Your task to perform on an android device: clear all cookies in the chrome app Image 0: 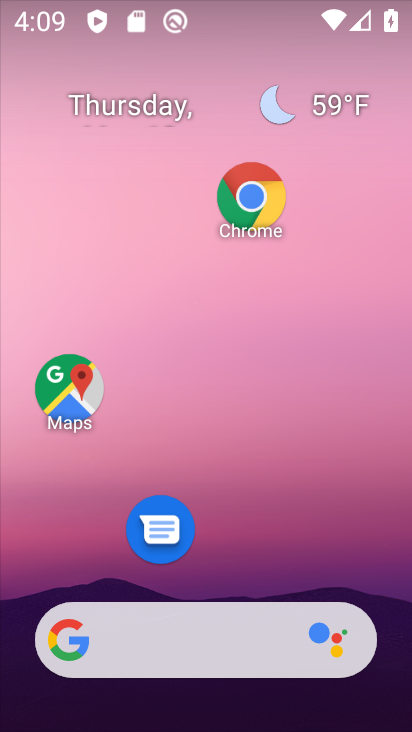
Step 0: drag from (235, 581) to (241, 58)
Your task to perform on an android device: clear all cookies in the chrome app Image 1: 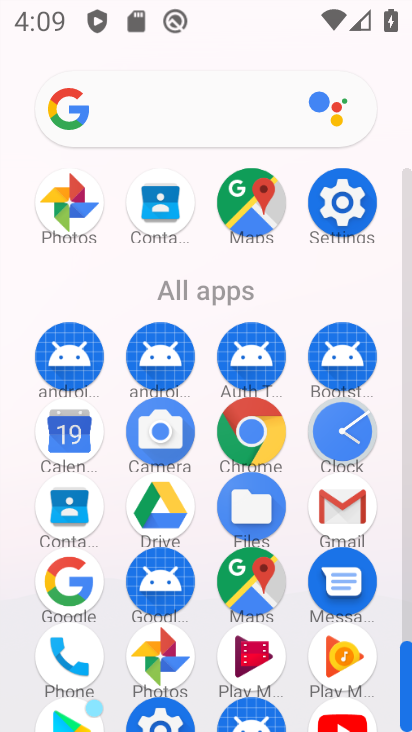
Step 1: click (242, 435)
Your task to perform on an android device: clear all cookies in the chrome app Image 2: 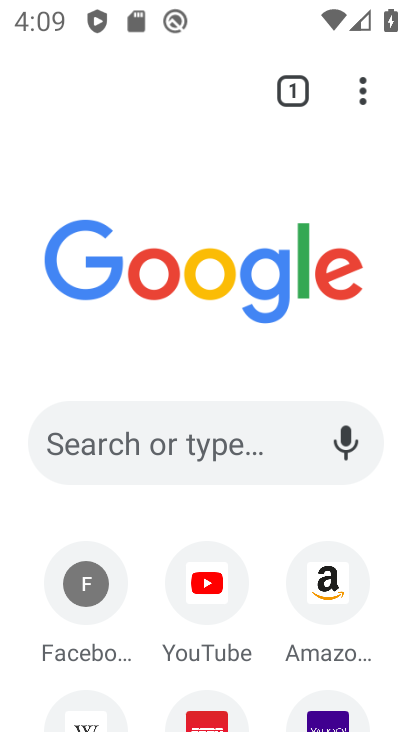
Step 2: click (361, 85)
Your task to perform on an android device: clear all cookies in the chrome app Image 3: 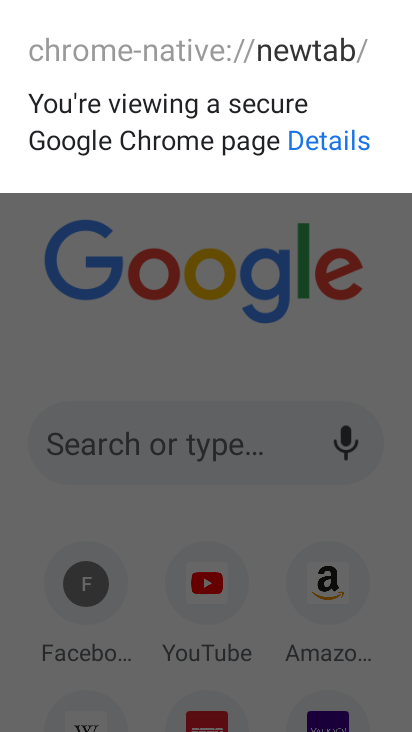
Step 3: click (265, 337)
Your task to perform on an android device: clear all cookies in the chrome app Image 4: 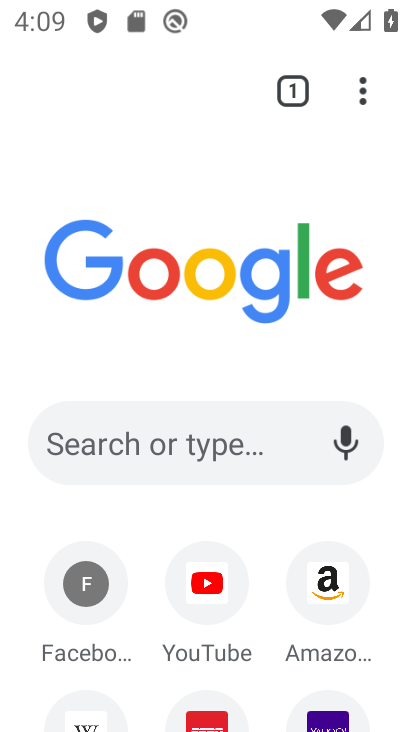
Step 4: click (361, 85)
Your task to perform on an android device: clear all cookies in the chrome app Image 5: 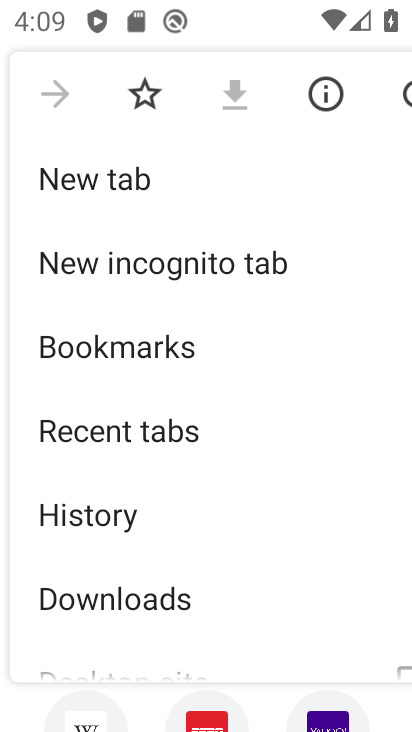
Step 5: click (146, 511)
Your task to perform on an android device: clear all cookies in the chrome app Image 6: 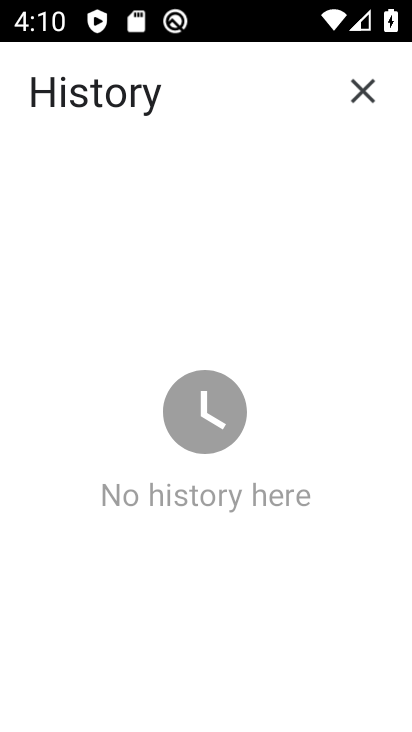
Step 6: task complete